Your task to perform on an android device: Show me productivity apps on the Play Store Image 0: 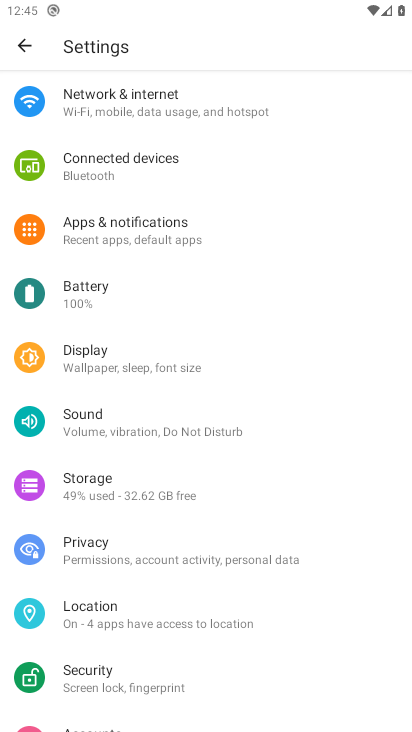
Step 0: press home button
Your task to perform on an android device: Show me productivity apps on the Play Store Image 1: 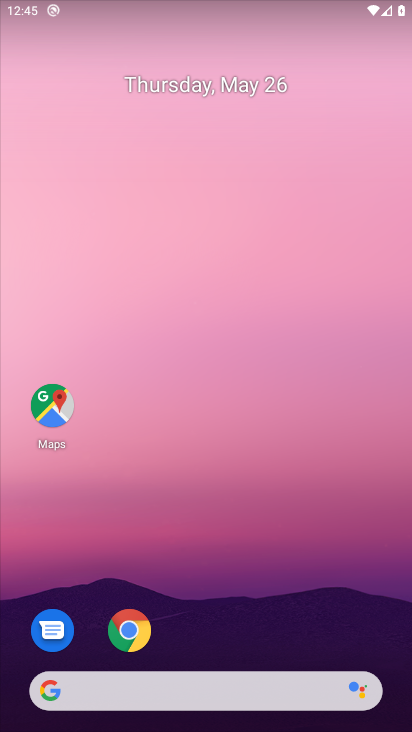
Step 1: drag from (220, 634) to (269, 143)
Your task to perform on an android device: Show me productivity apps on the Play Store Image 2: 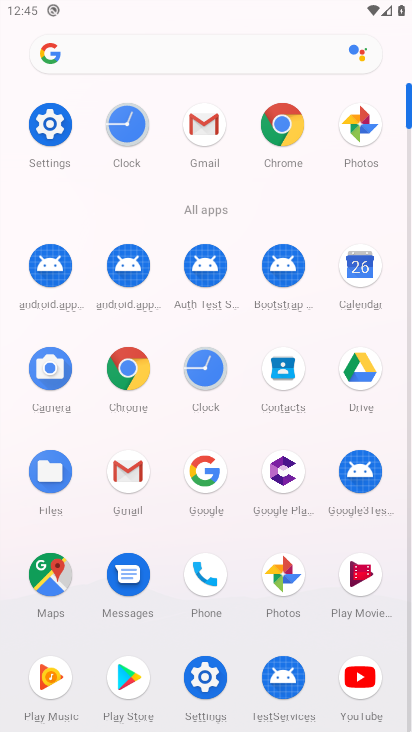
Step 2: click (127, 665)
Your task to perform on an android device: Show me productivity apps on the Play Store Image 3: 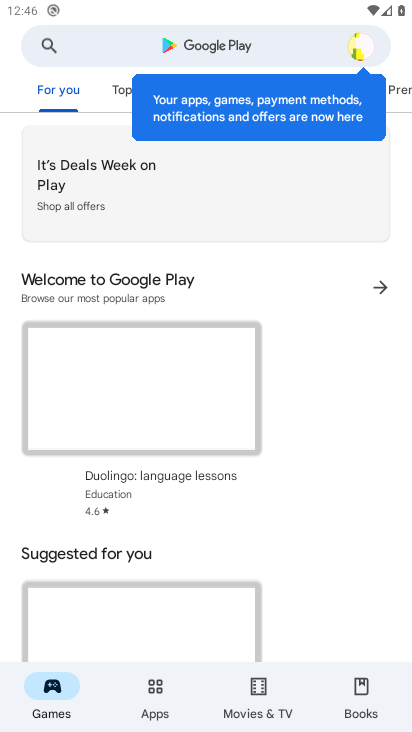
Step 3: click (150, 692)
Your task to perform on an android device: Show me productivity apps on the Play Store Image 4: 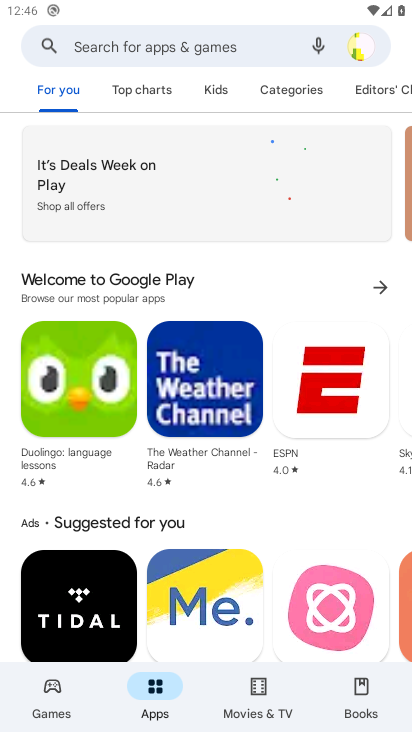
Step 4: click (303, 87)
Your task to perform on an android device: Show me productivity apps on the Play Store Image 5: 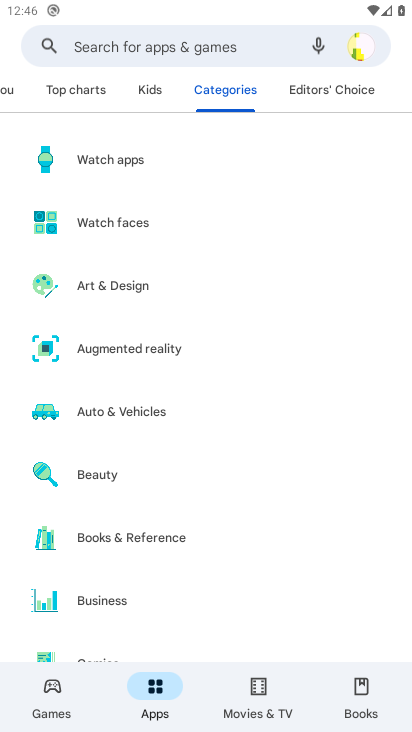
Step 5: drag from (174, 552) to (228, 62)
Your task to perform on an android device: Show me productivity apps on the Play Store Image 6: 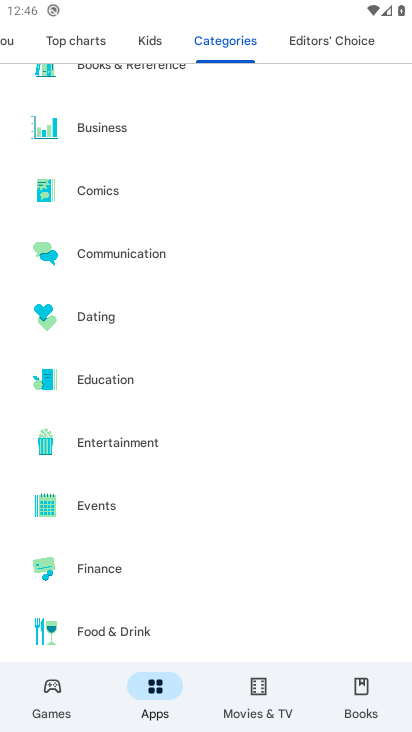
Step 6: drag from (161, 558) to (206, 127)
Your task to perform on an android device: Show me productivity apps on the Play Store Image 7: 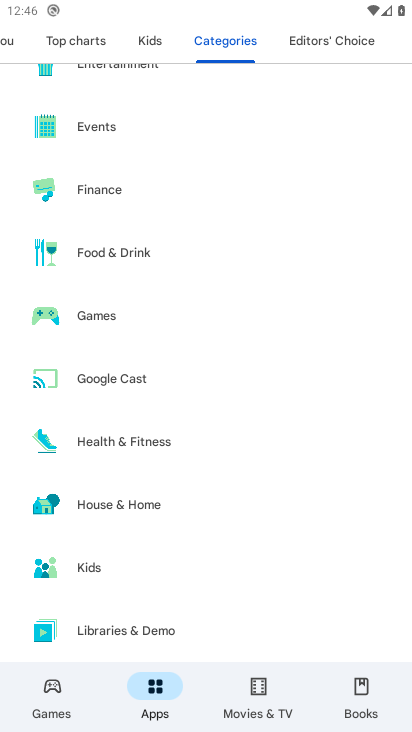
Step 7: drag from (161, 539) to (183, 213)
Your task to perform on an android device: Show me productivity apps on the Play Store Image 8: 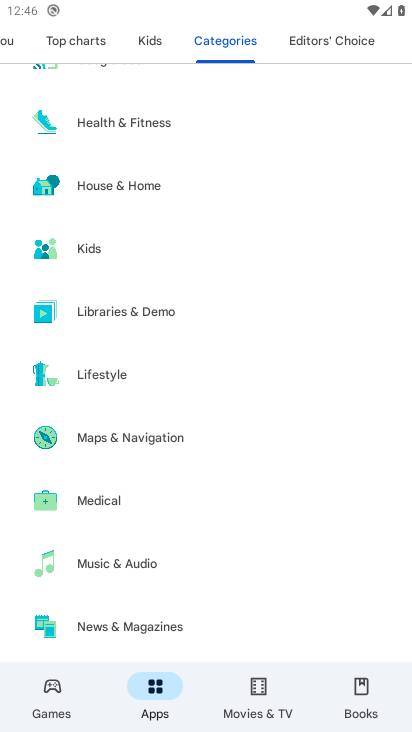
Step 8: drag from (108, 613) to (108, 69)
Your task to perform on an android device: Show me productivity apps on the Play Store Image 9: 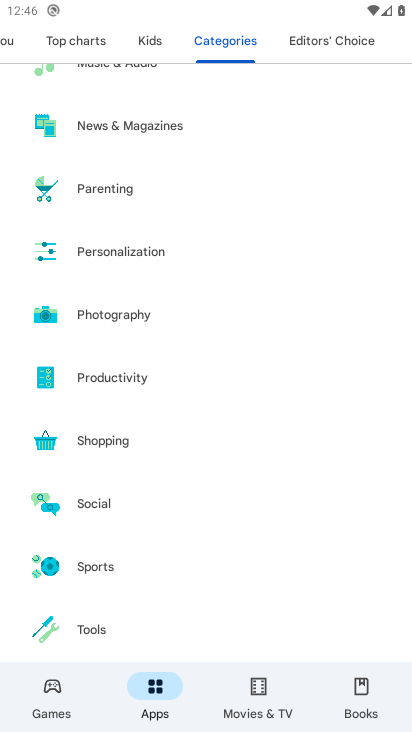
Step 9: click (114, 382)
Your task to perform on an android device: Show me productivity apps on the Play Store Image 10: 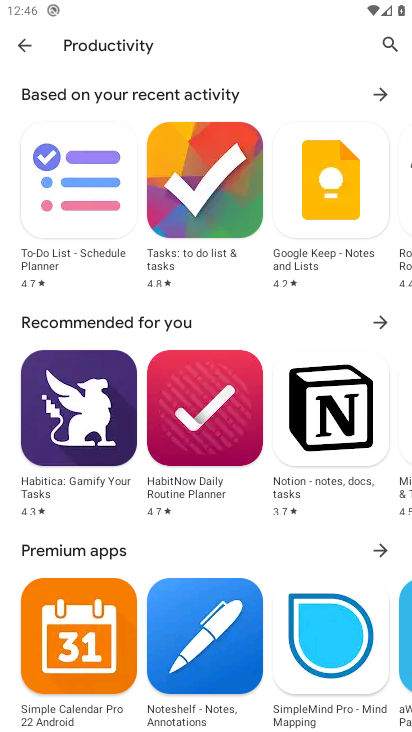
Step 10: task complete